Your task to perform on an android device: Search for seafood restaurants on Google Maps Image 0: 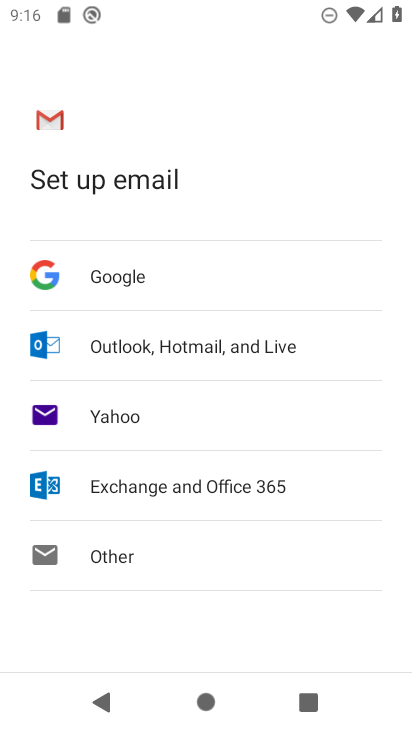
Step 0: press home button
Your task to perform on an android device: Search for seafood restaurants on Google Maps Image 1: 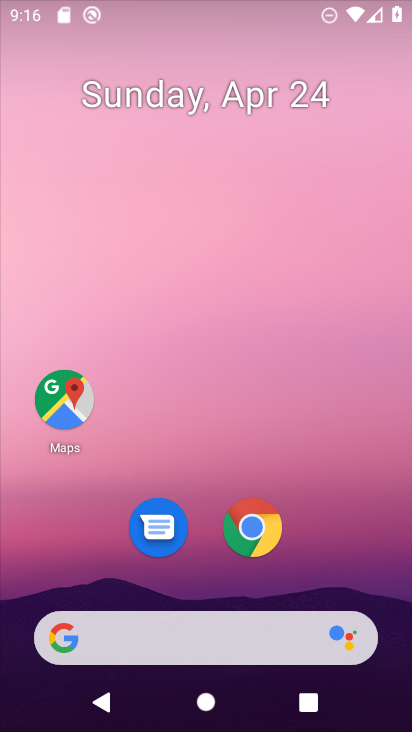
Step 1: drag from (385, 606) to (224, 52)
Your task to perform on an android device: Search for seafood restaurants on Google Maps Image 2: 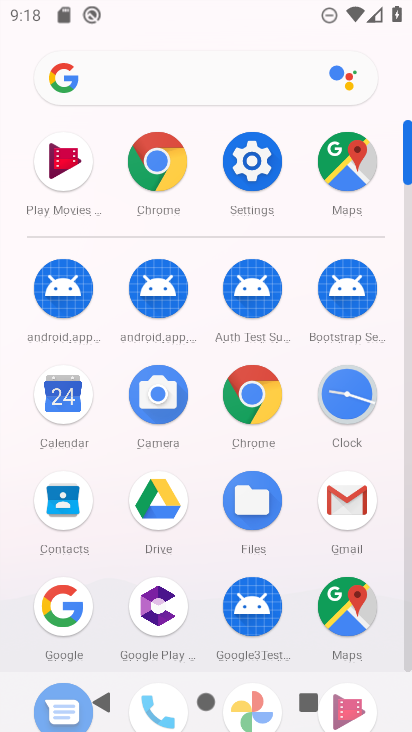
Step 2: click (342, 614)
Your task to perform on an android device: Search for seafood restaurants on Google Maps Image 3: 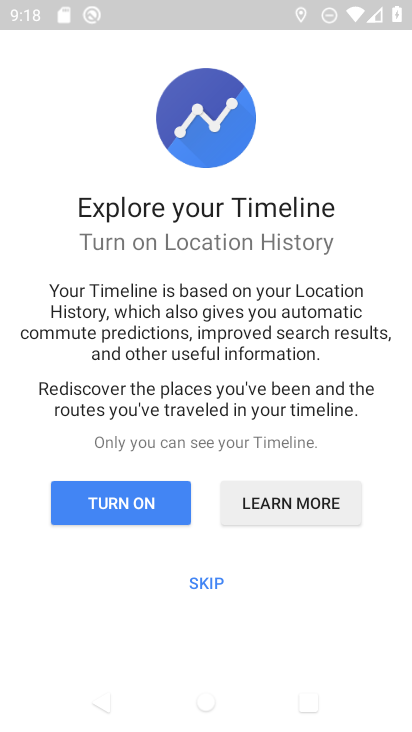
Step 3: press back button
Your task to perform on an android device: Search for seafood restaurants on Google Maps Image 4: 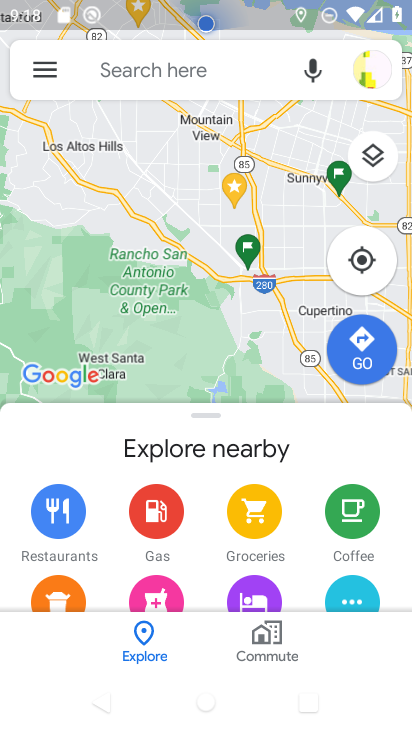
Step 4: click (187, 64)
Your task to perform on an android device: Search for seafood restaurants on Google Maps Image 5: 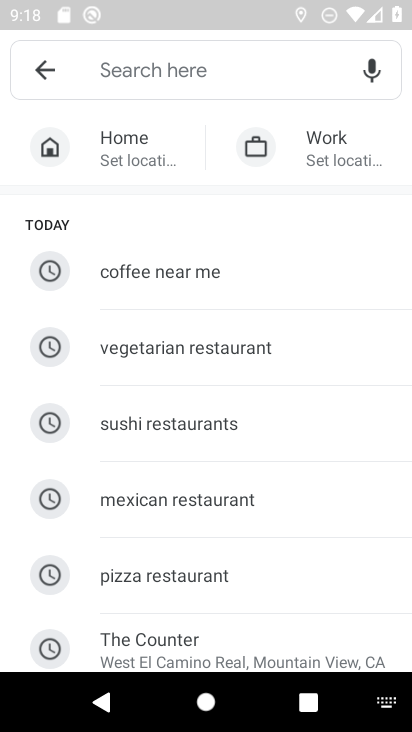
Step 5: drag from (143, 593) to (200, 140)
Your task to perform on an android device: Search for seafood restaurants on Google Maps Image 6: 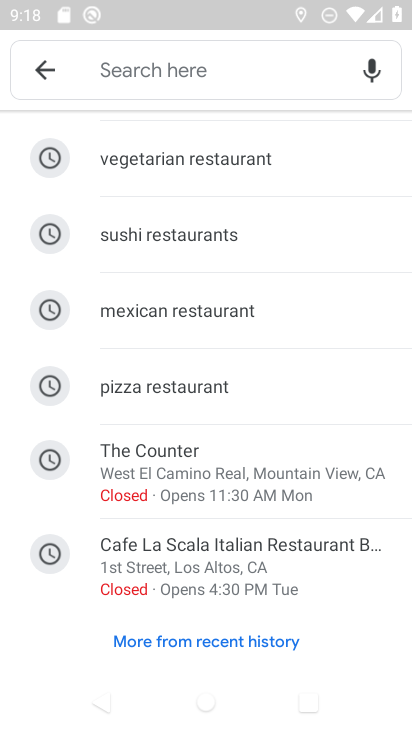
Step 6: click (209, 76)
Your task to perform on an android device: Search for seafood restaurants on Google Maps Image 7: 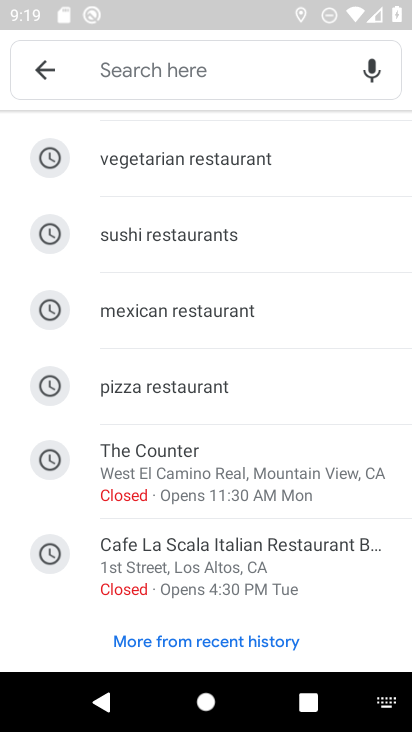
Step 7: type "seafood restarurnats"
Your task to perform on an android device: Search for seafood restaurants on Google Maps Image 8: 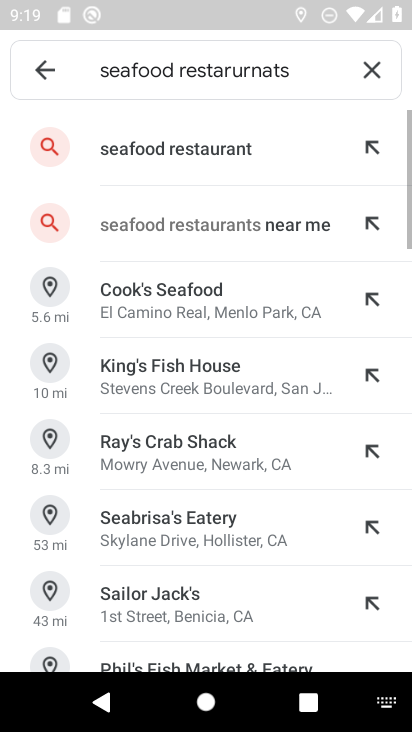
Step 8: click (183, 150)
Your task to perform on an android device: Search for seafood restaurants on Google Maps Image 9: 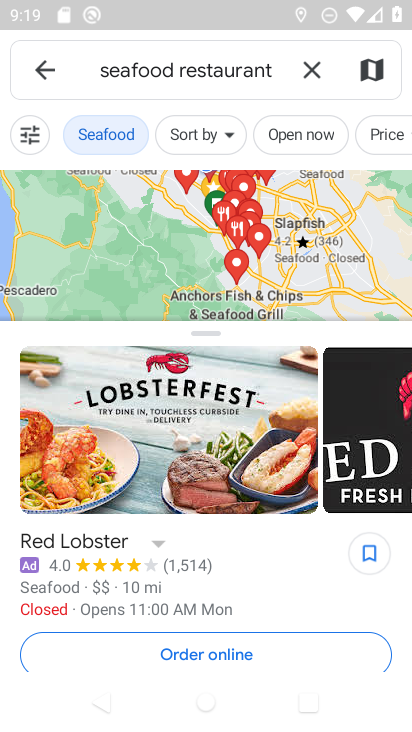
Step 9: task complete